Your task to perform on an android device: Go to Amazon Image 0: 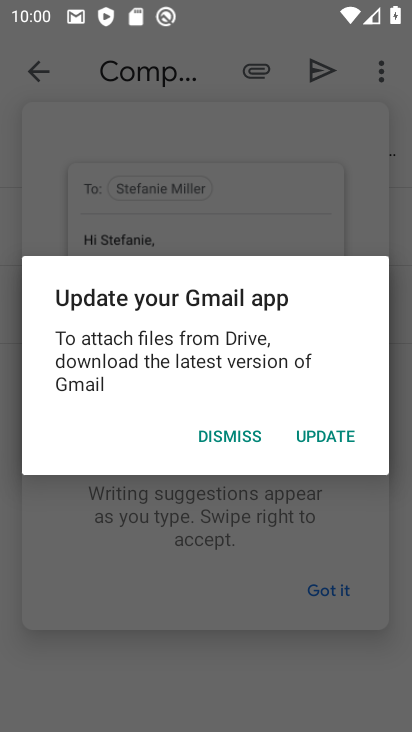
Step 0: press home button
Your task to perform on an android device: Go to Amazon Image 1: 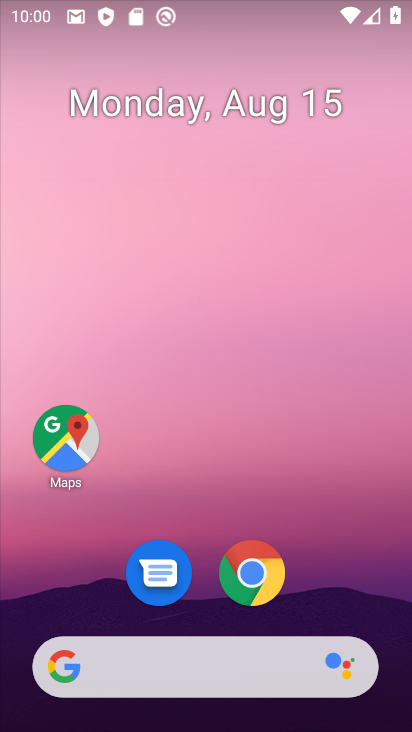
Step 1: click (253, 574)
Your task to perform on an android device: Go to Amazon Image 2: 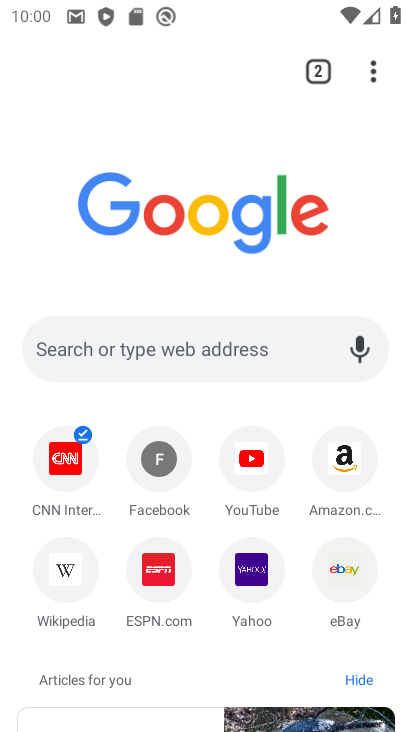
Step 2: click (345, 458)
Your task to perform on an android device: Go to Amazon Image 3: 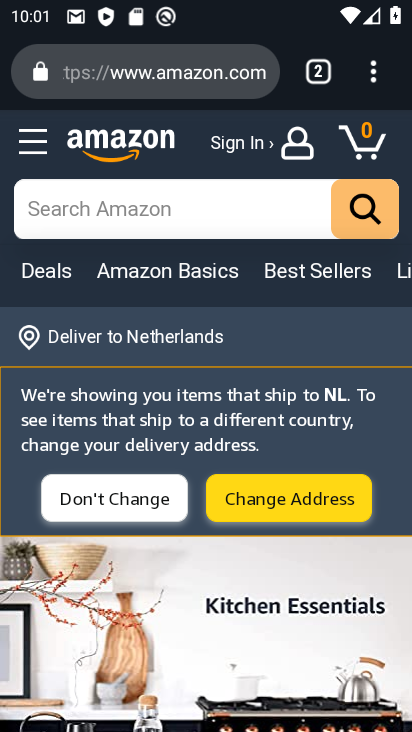
Step 3: task complete